Your task to perform on an android device: turn smart compose on in the gmail app Image 0: 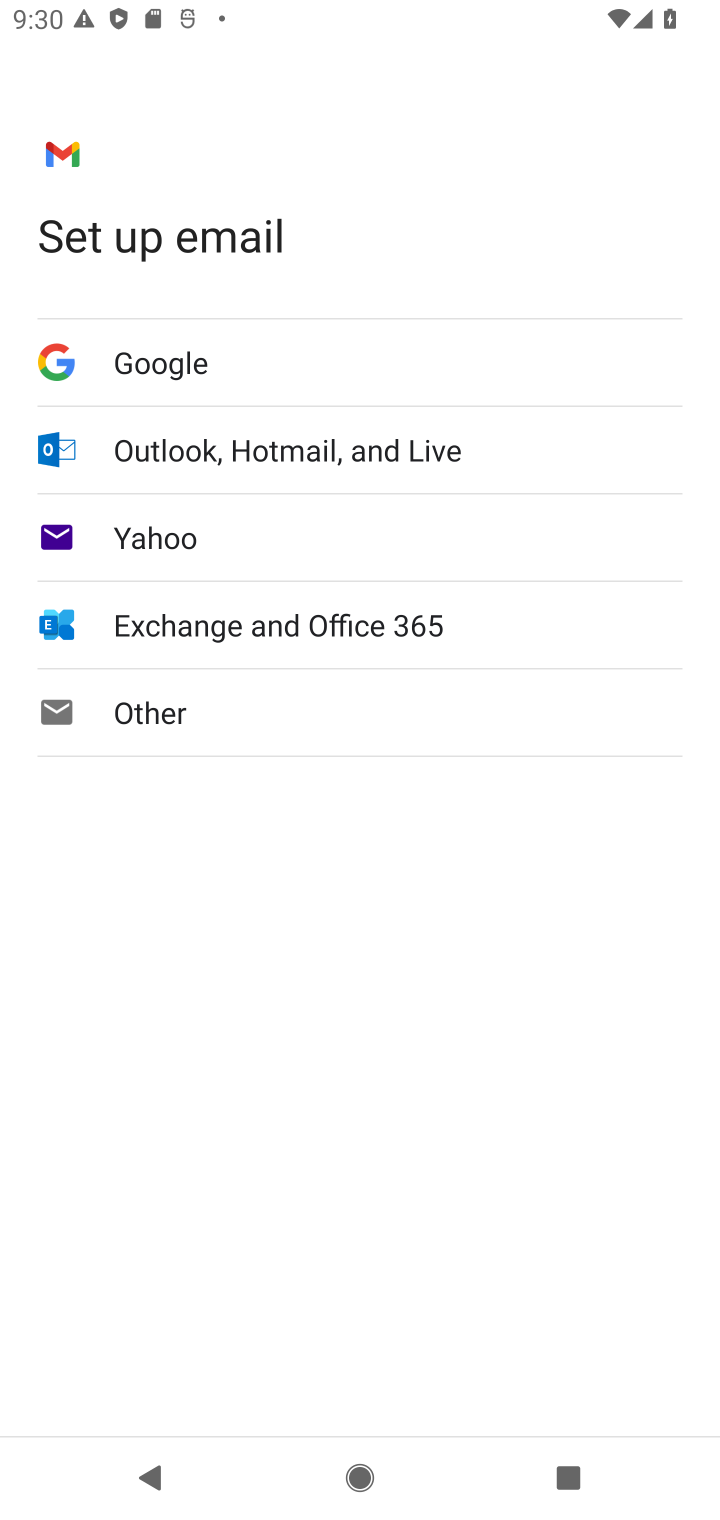
Step 0: drag from (411, 847) to (462, 494)
Your task to perform on an android device: turn smart compose on in the gmail app Image 1: 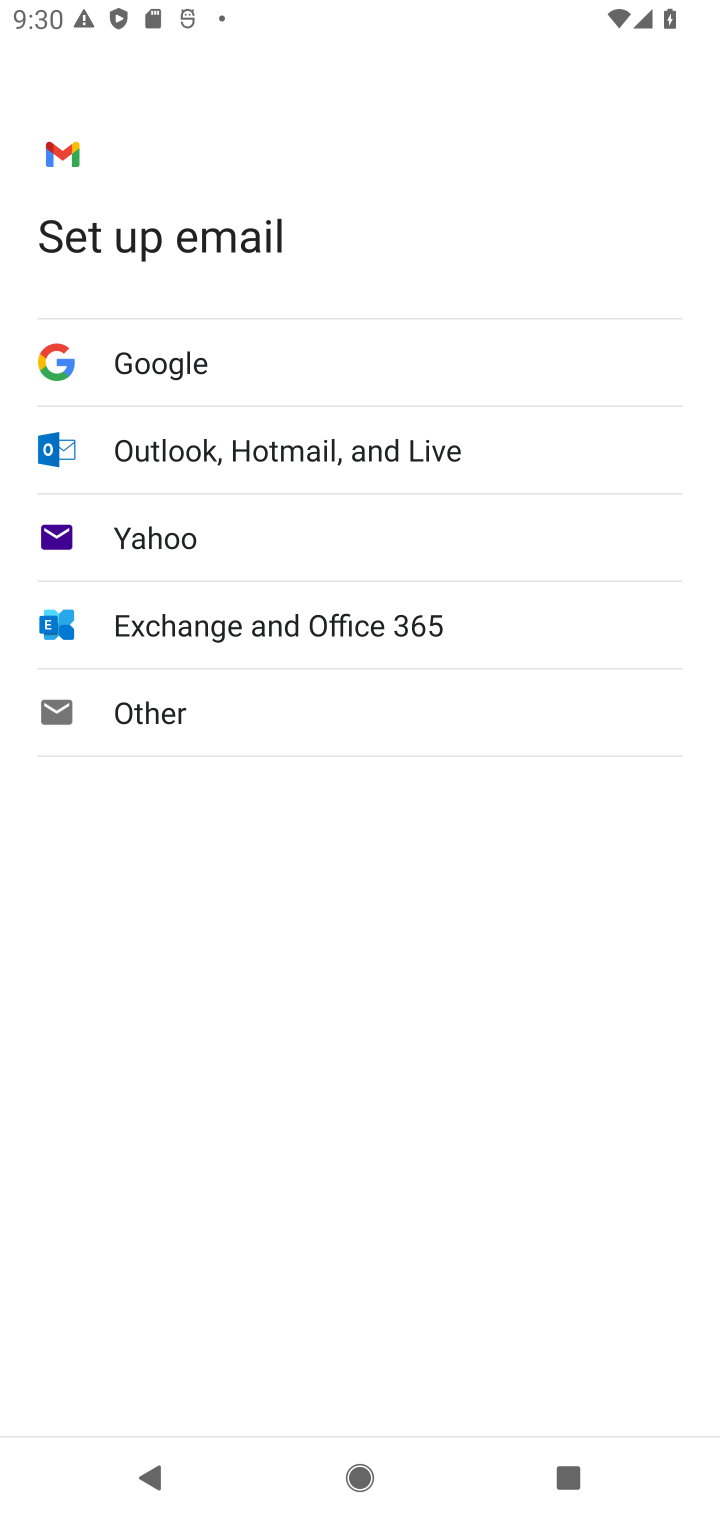
Step 1: drag from (290, 1179) to (349, 860)
Your task to perform on an android device: turn smart compose on in the gmail app Image 2: 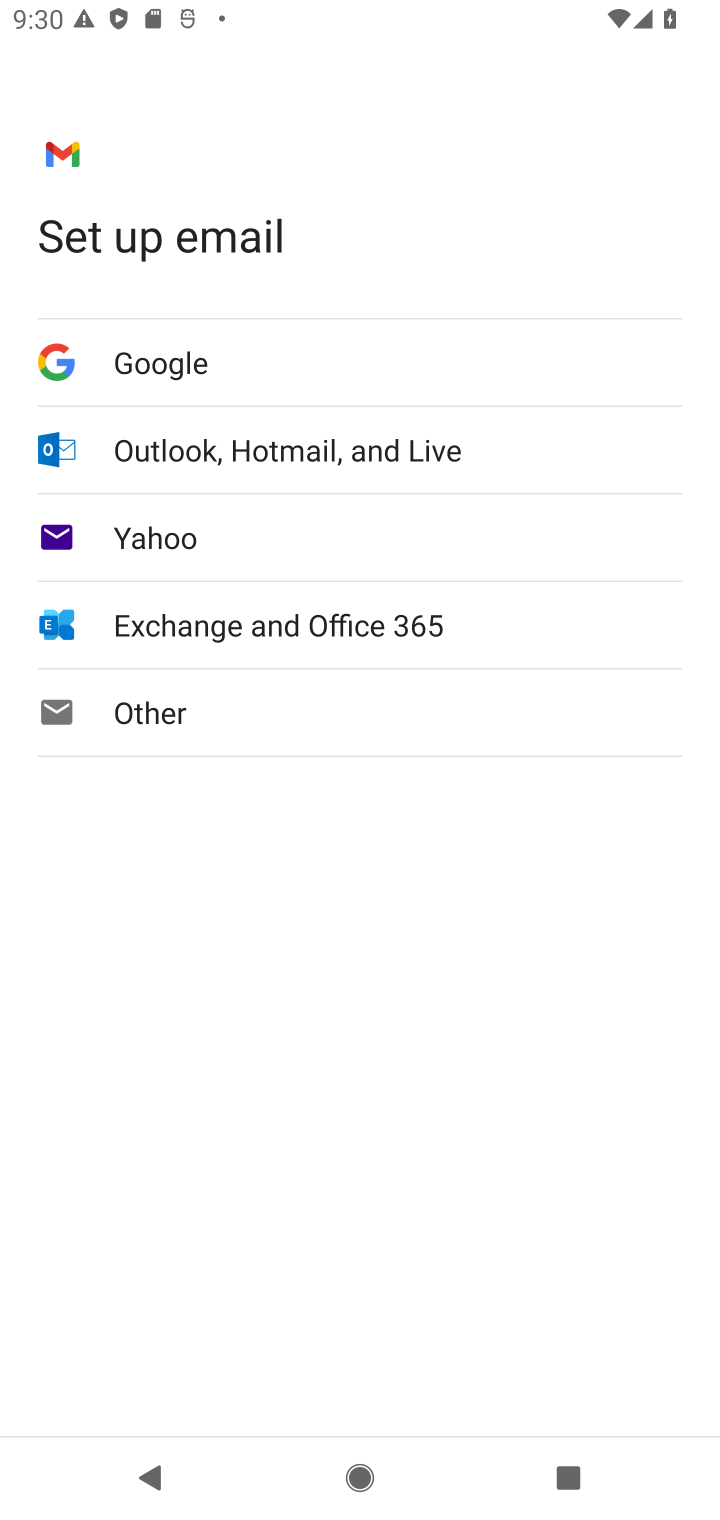
Step 2: press home button
Your task to perform on an android device: turn smart compose on in the gmail app Image 3: 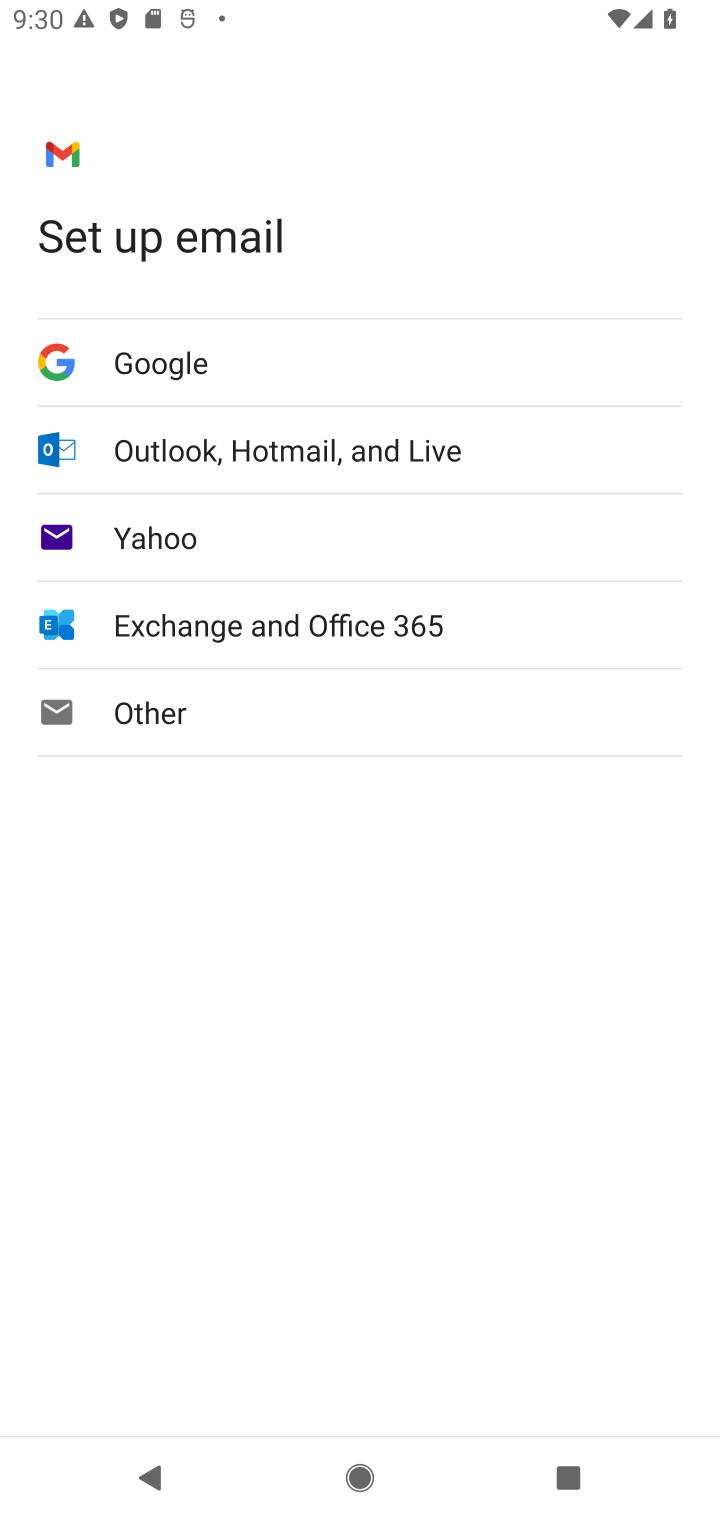
Step 3: drag from (166, 1151) to (321, 624)
Your task to perform on an android device: turn smart compose on in the gmail app Image 4: 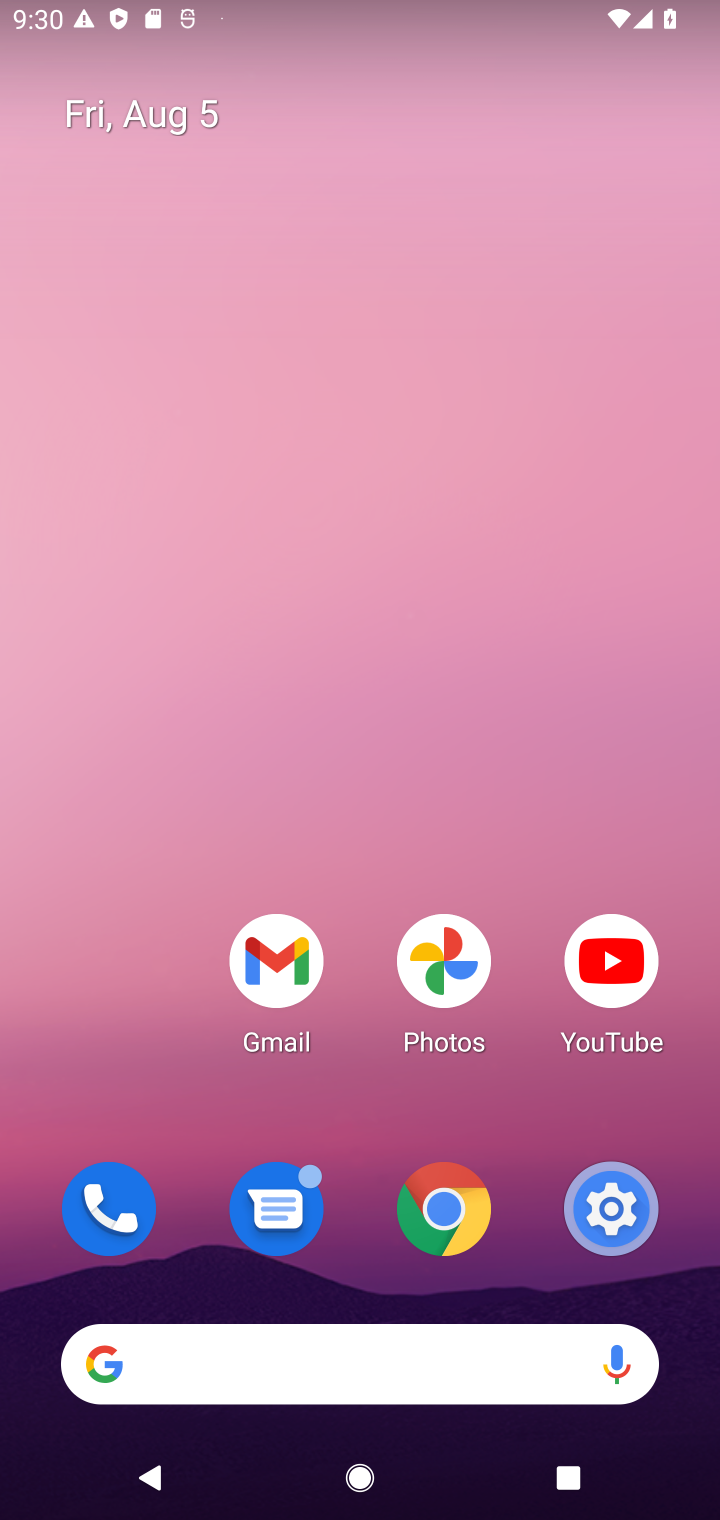
Step 4: click (279, 960)
Your task to perform on an android device: turn smart compose on in the gmail app Image 5: 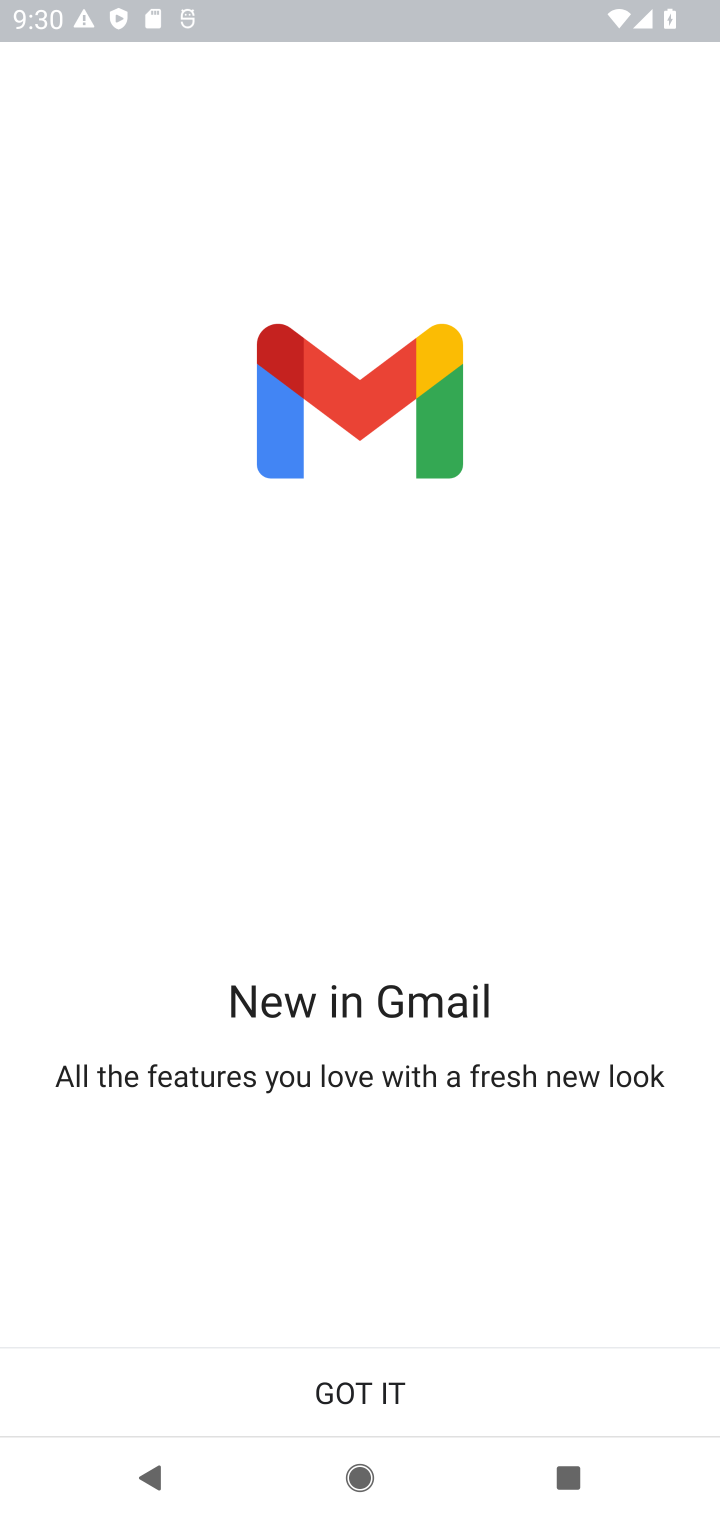
Step 5: drag from (382, 1324) to (367, 786)
Your task to perform on an android device: turn smart compose on in the gmail app Image 6: 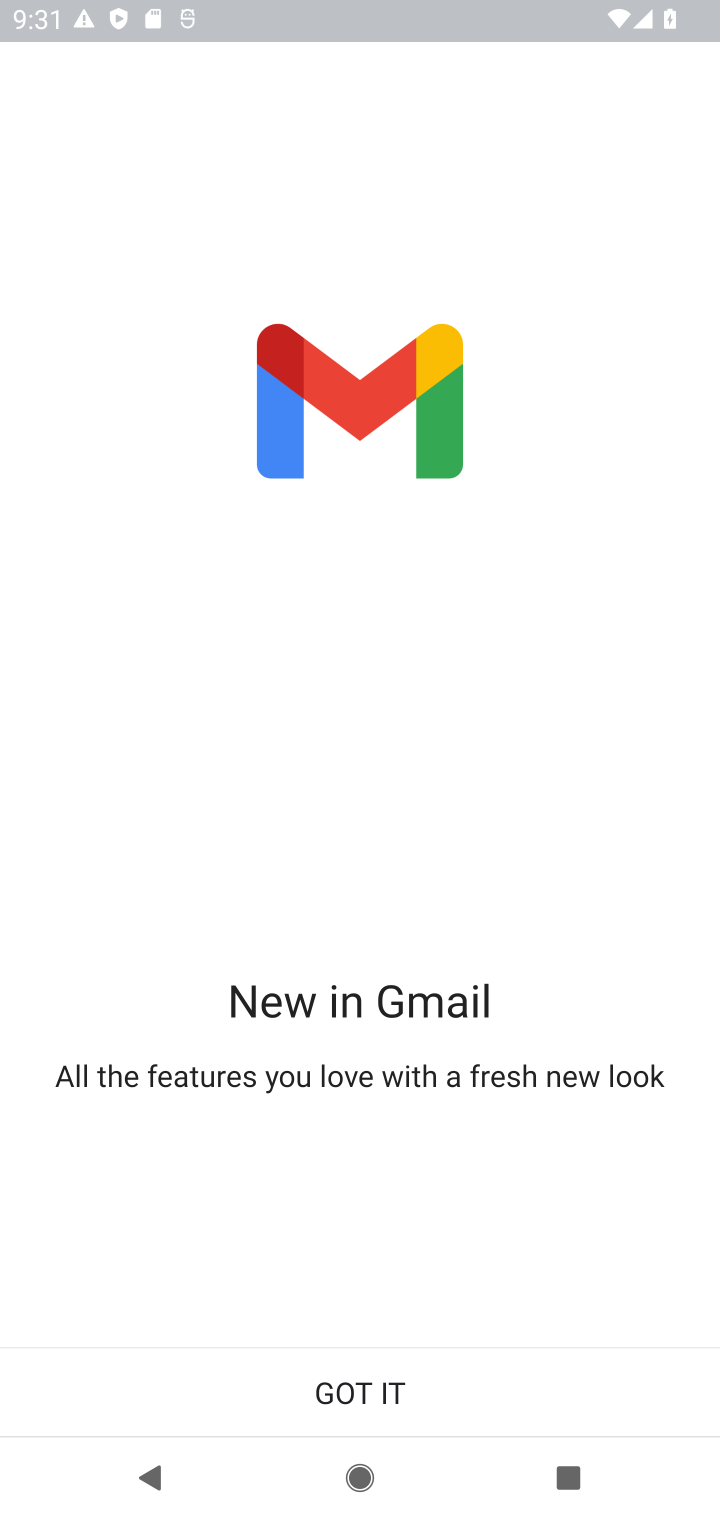
Step 6: click (353, 1364)
Your task to perform on an android device: turn smart compose on in the gmail app Image 7: 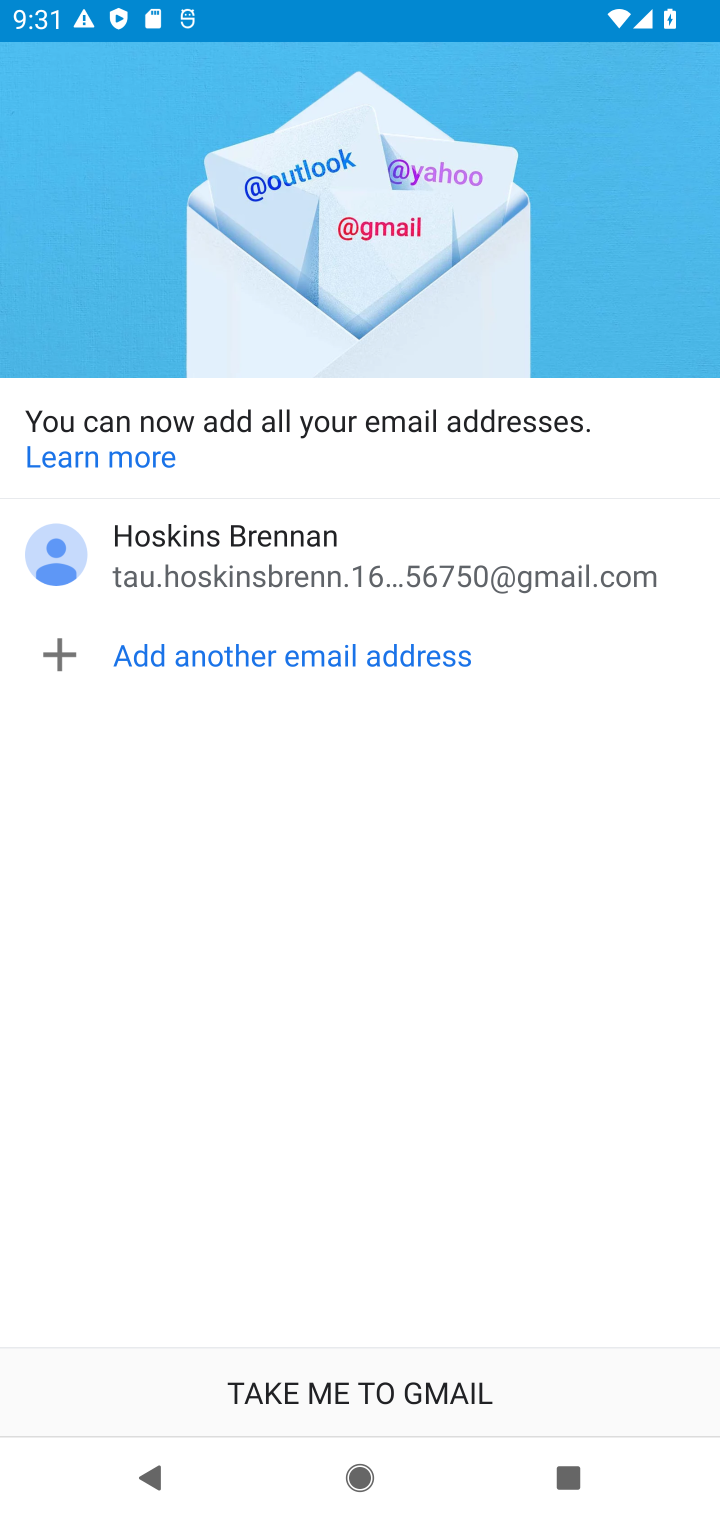
Step 7: click (258, 1412)
Your task to perform on an android device: turn smart compose on in the gmail app Image 8: 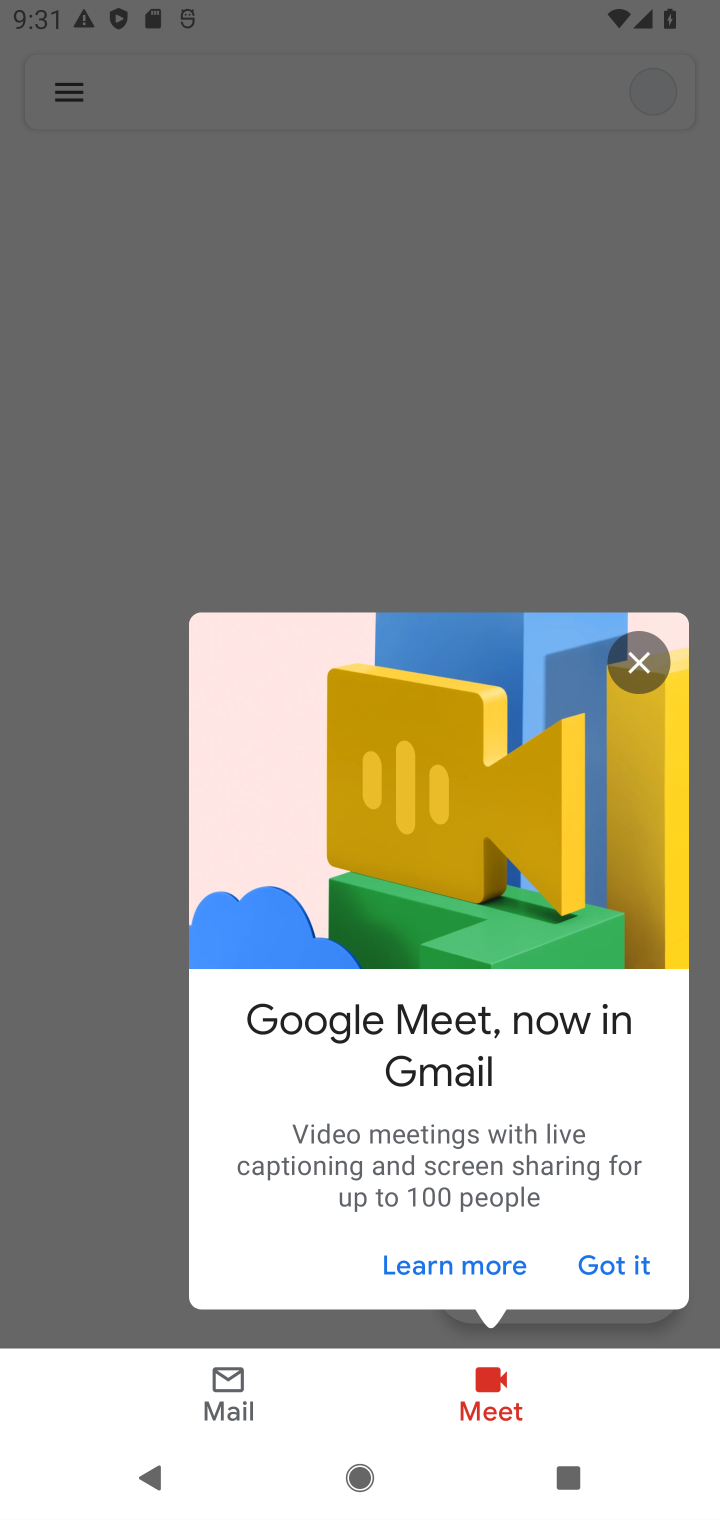
Step 8: click (65, 107)
Your task to perform on an android device: turn smart compose on in the gmail app Image 9: 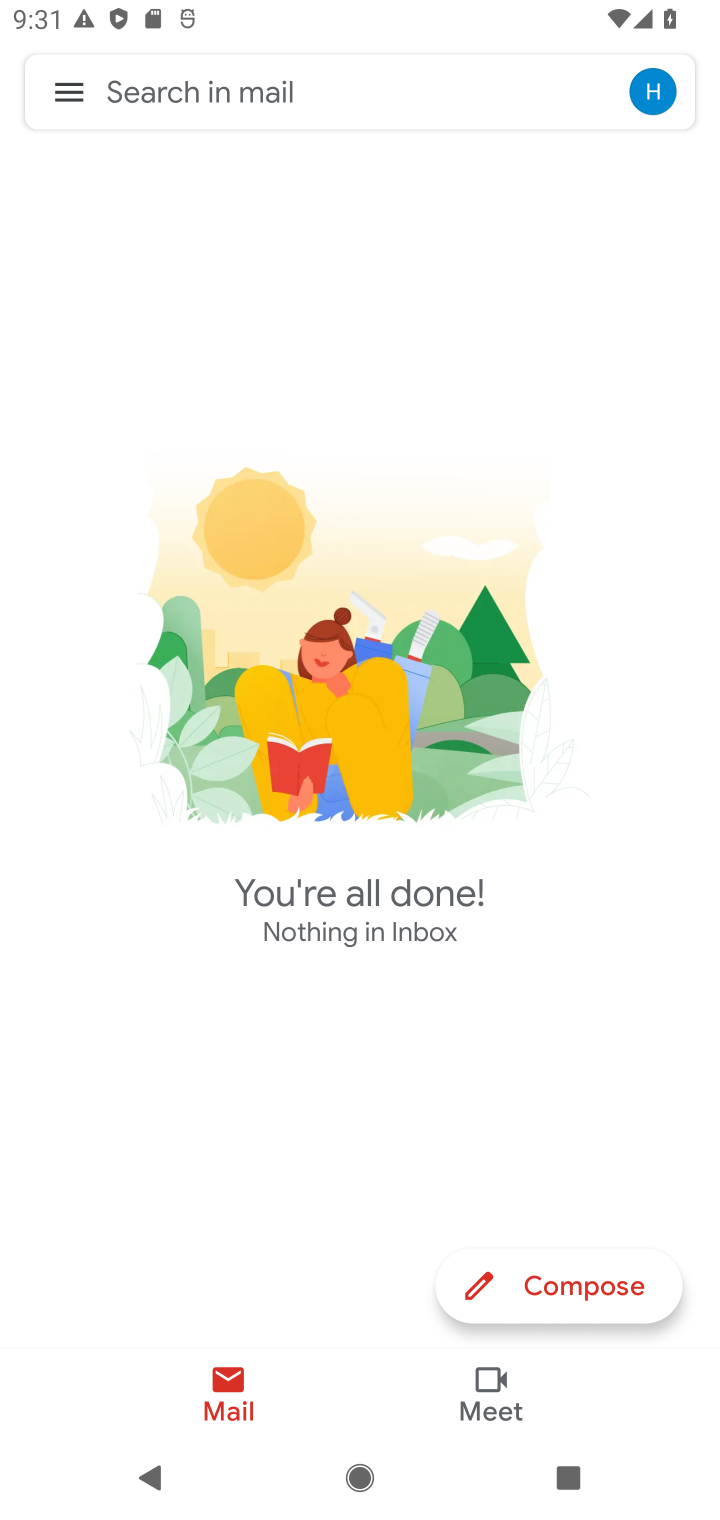
Step 9: click (74, 73)
Your task to perform on an android device: turn smart compose on in the gmail app Image 10: 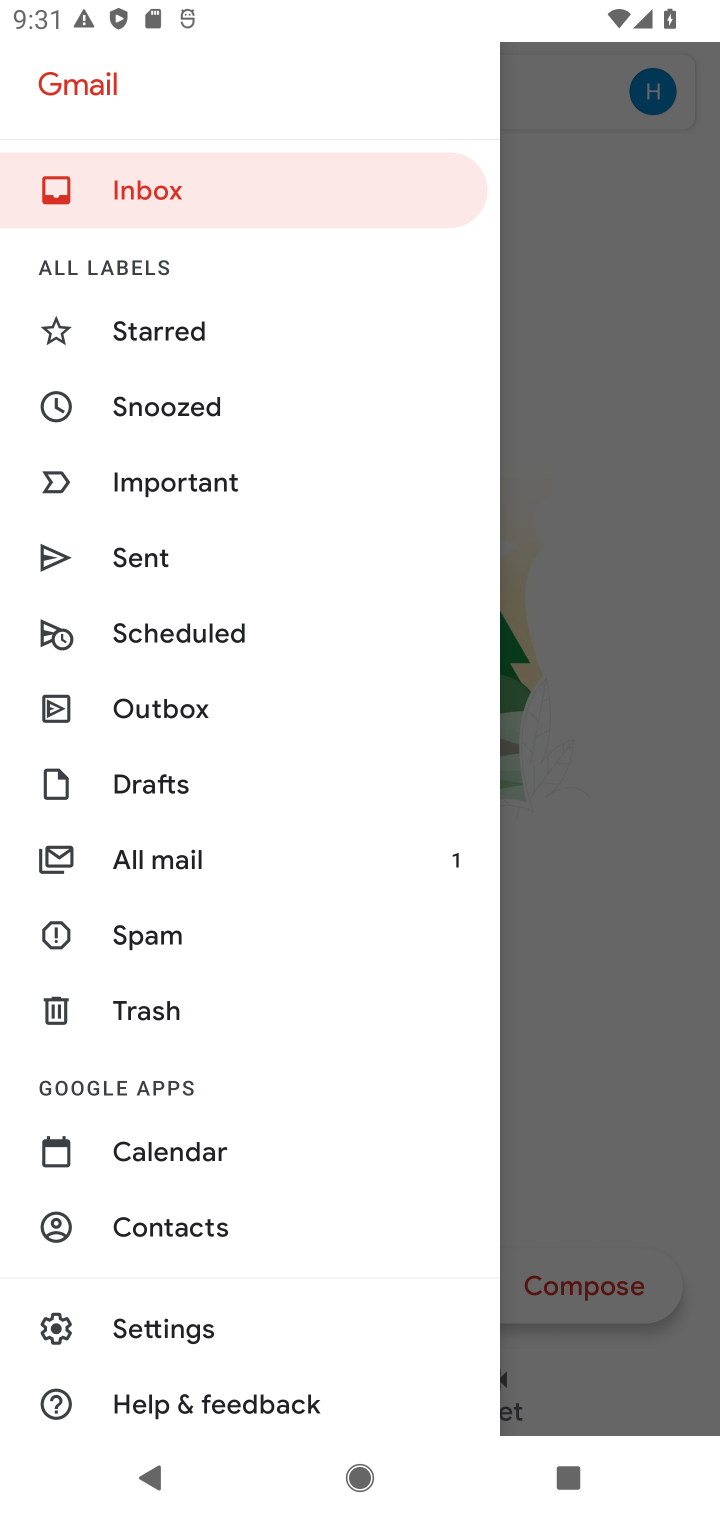
Step 10: click (175, 1336)
Your task to perform on an android device: turn smart compose on in the gmail app Image 11: 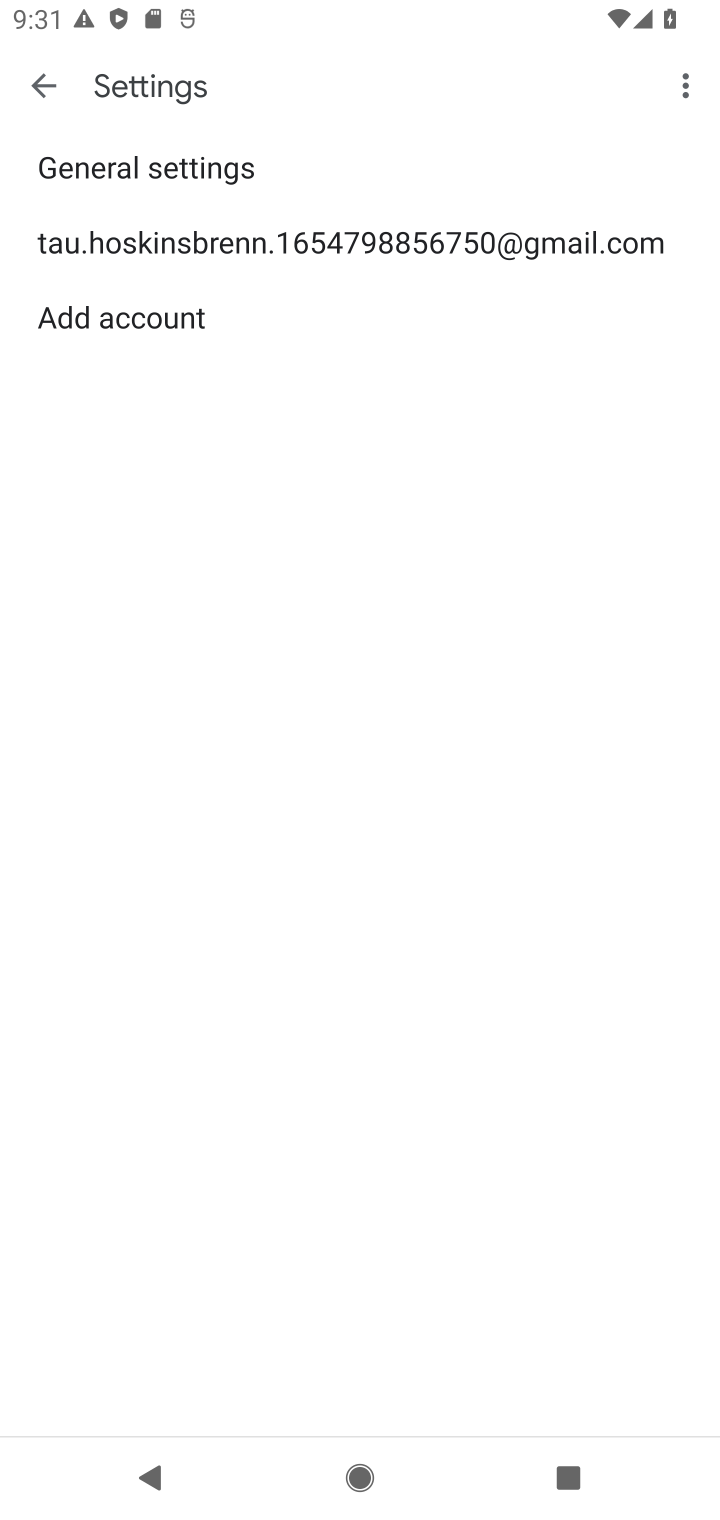
Step 11: click (168, 247)
Your task to perform on an android device: turn smart compose on in the gmail app Image 12: 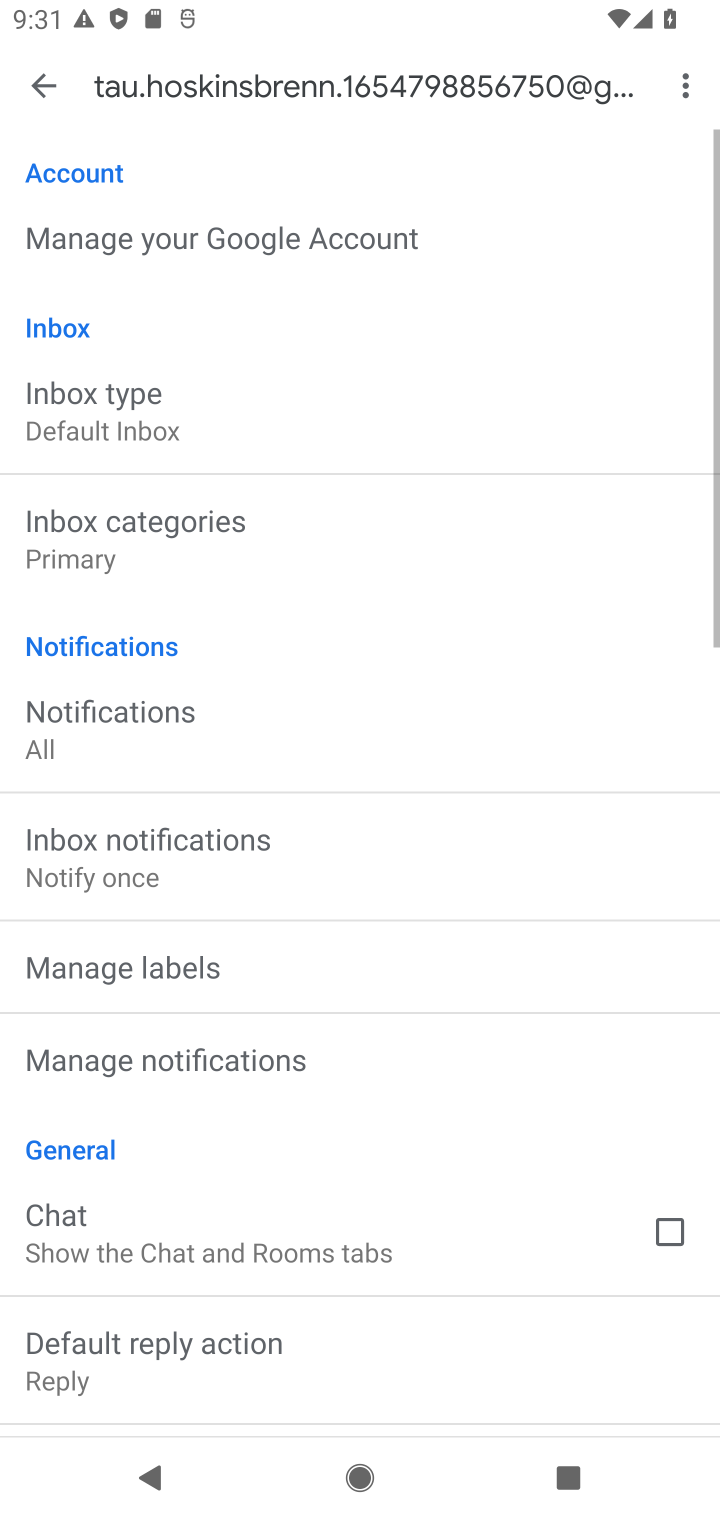
Step 12: task complete